Your task to perform on an android device: Open Google Maps Image 0: 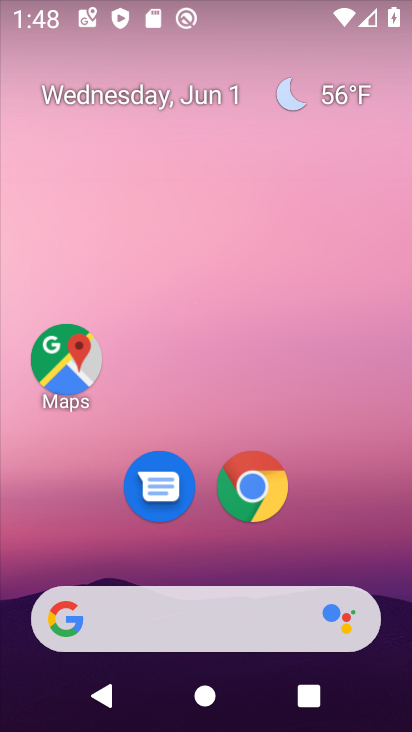
Step 0: click (78, 360)
Your task to perform on an android device: Open Google Maps Image 1: 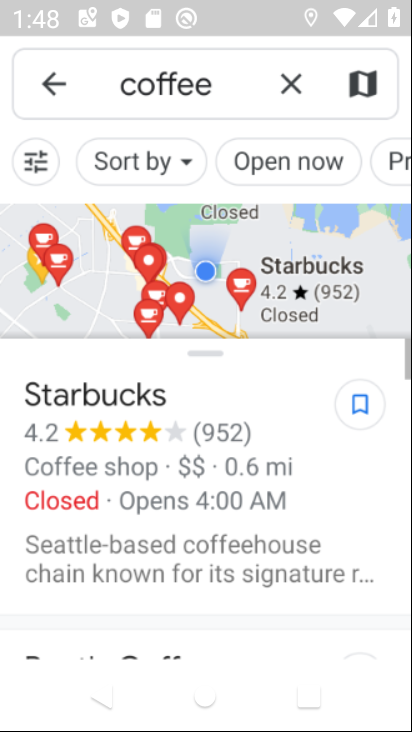
Step 1: task complete